Your task to perform on an android device: toggle translation in the chrome app Image 0: 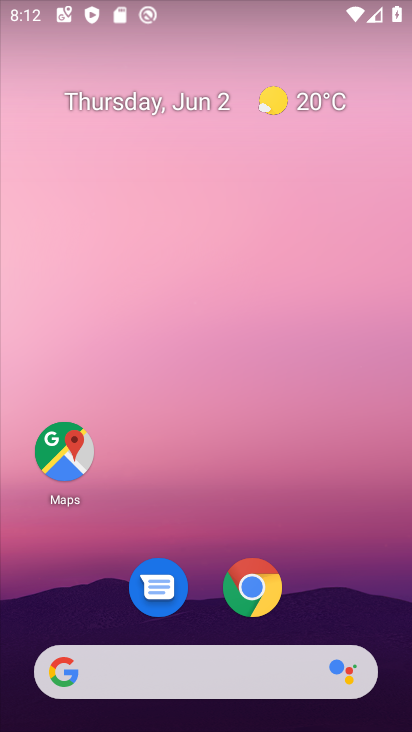
Step 0: click (257, 591)
Your task to perform on an android device: toggle translation in the chrome app Image 1: 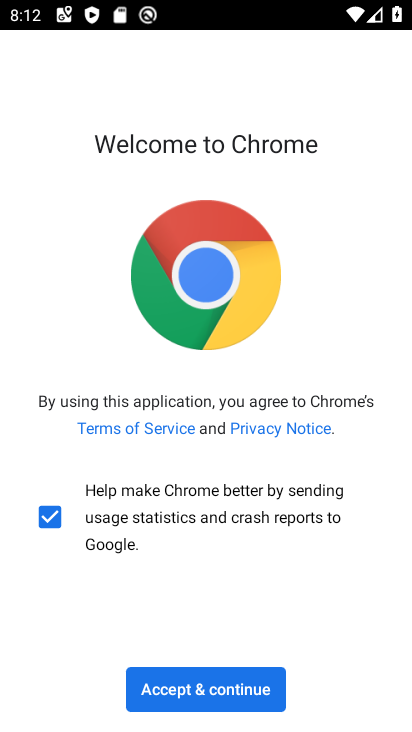
Step 1: click (224, 692)
Your task to perform on an android device: toggle translation in the chrome app Image 2: 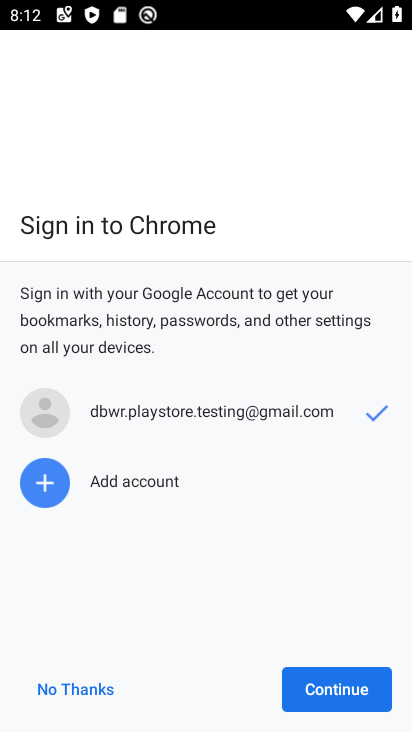
Step 2: click (327, 685)
Your task to perform on an android device: toggle translation in the chrome app Image 3: 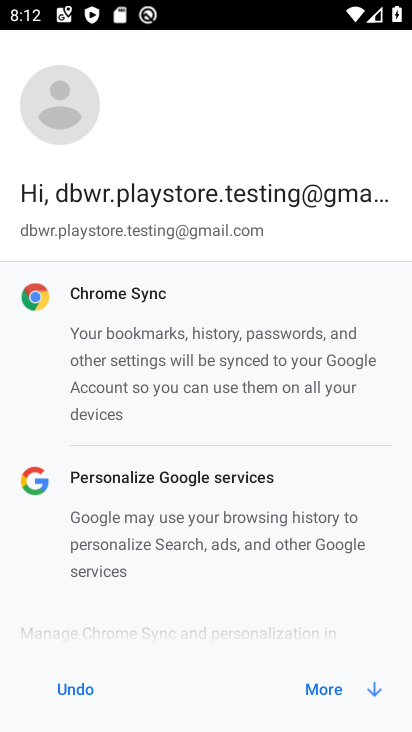
Step 3: click (337, 696)
Your task to perform on an android device: toggle translation in the chrome app Image 4: 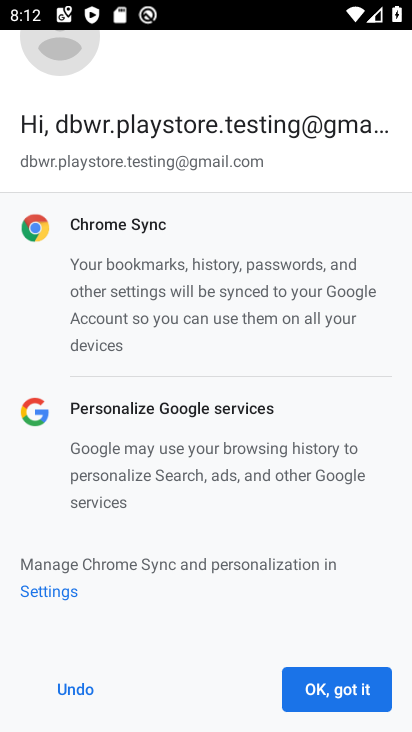
Step 4: click (337, 696)
Your task to perform on an android device: toggle translation in the chrome app Image 5: 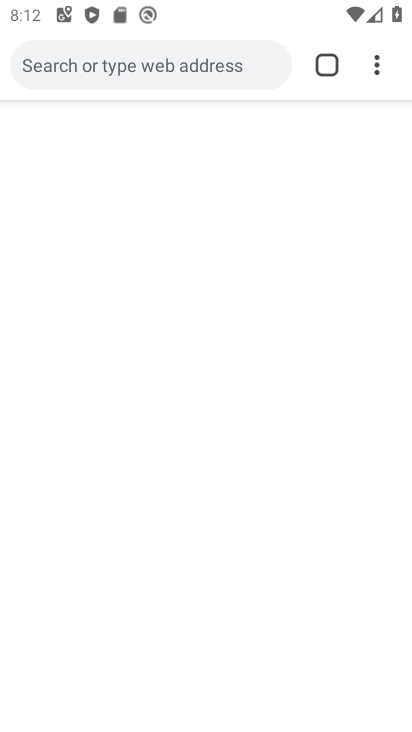
Step 5: click (386, 59)
Your task to perform on an android device: toggle translation in the chrome app Image 6: 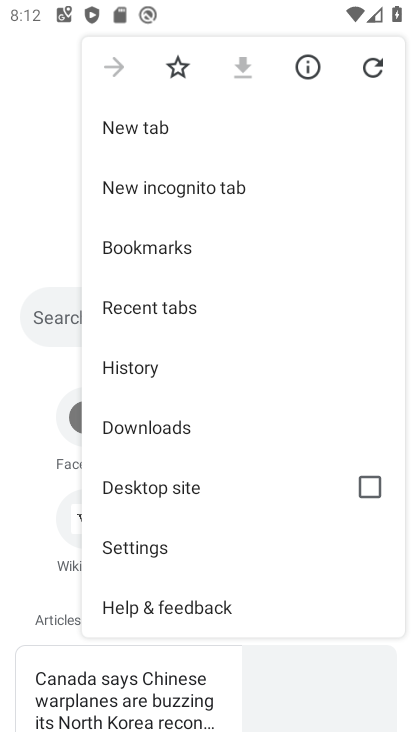
Step 6: click (181, 548)
Your task to perform on an android device: toggle translation in the chrome app Image 7: 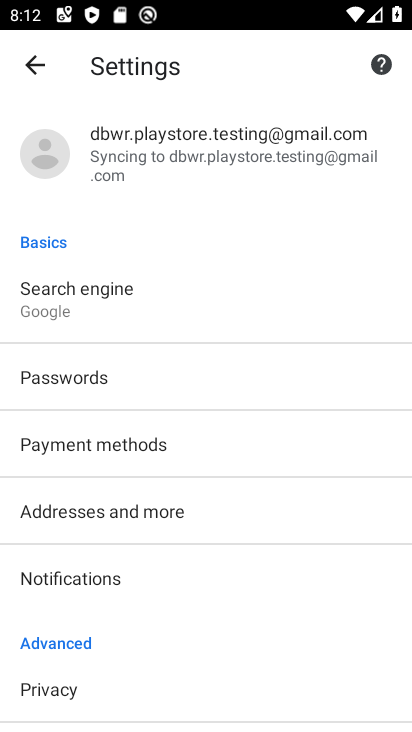
Step 7: drag from (181, 548) to (229, 224)
Your task to perform on an android device: toggle translation in the chrome app Image 8: 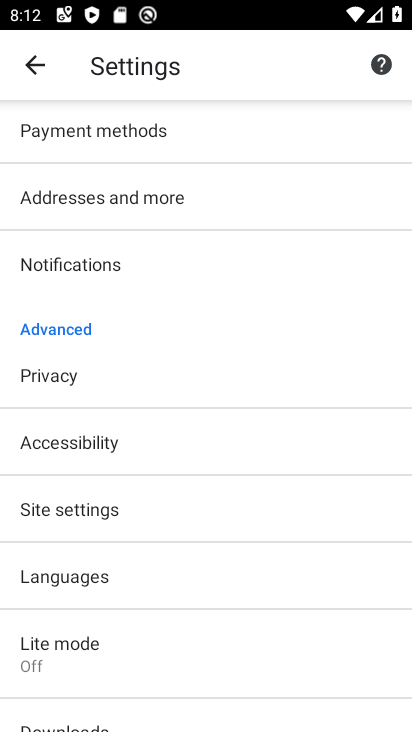
Step 8: click (78, 574)
Your task to perform on an android device: toggle translation in the chrome app Image 9: 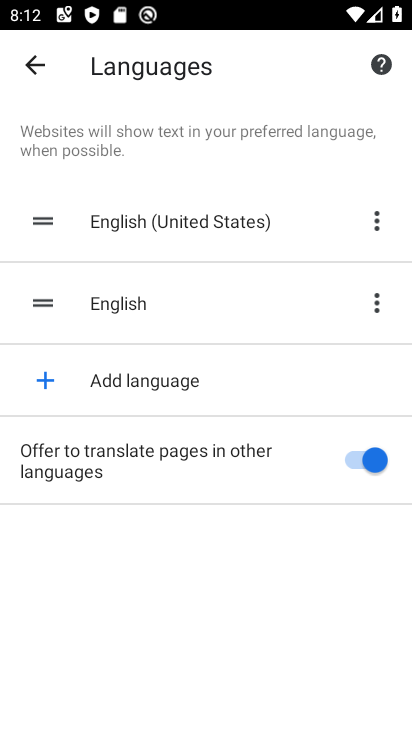
Step 9: click (384, 452)
Your task to perform on an android device: toggle translation in the chrome app Image 10: 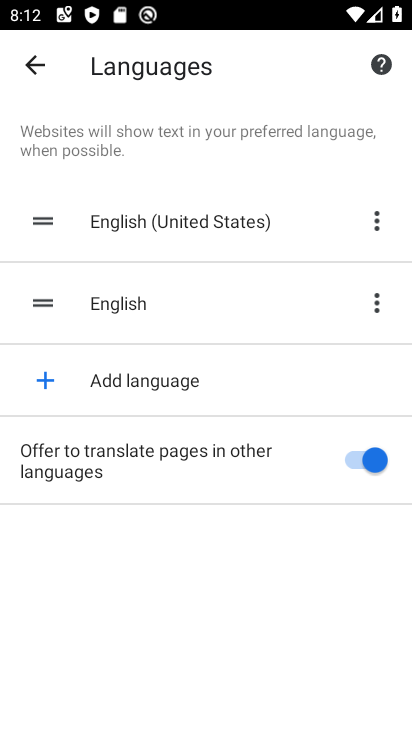
Step 10: click (384, 452)
Your task to perform on an android device: toggle translation in the chrome app Image 11: 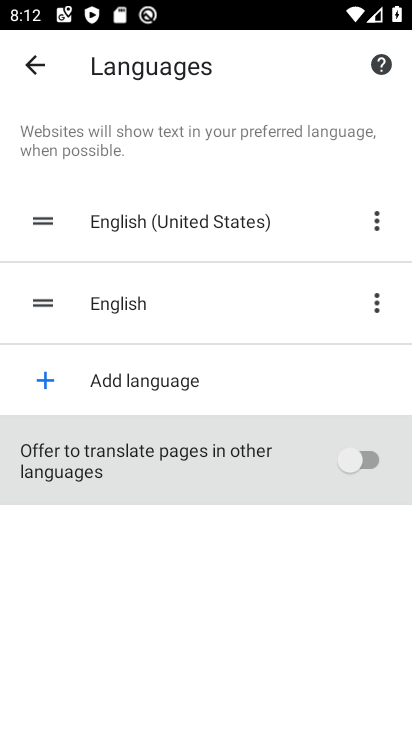
Step 11: click (384, 452)
Your task to perform on an android device: toggle translation in the chrome app Image 12: 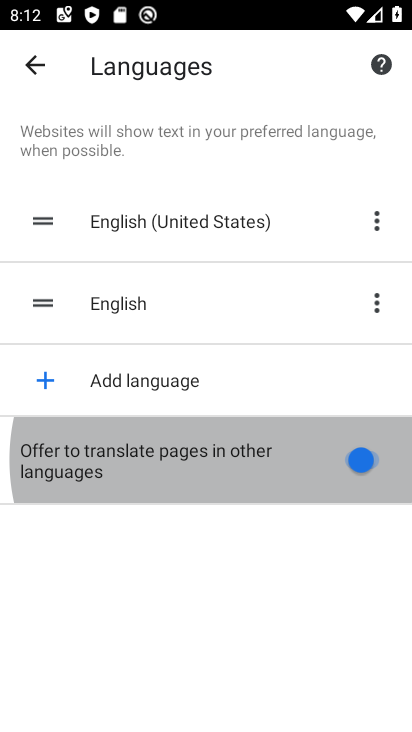
Step 12: click (384, 452)
Your task to perform on an android device: toggle translation in the chrome app Image 13: 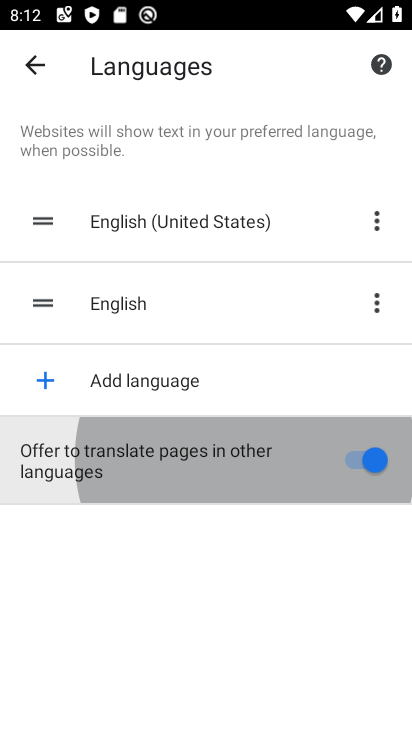
Step 13: click (384, 452)
Your task to perform on an android device: toggle translation in the chrome app Image 14: 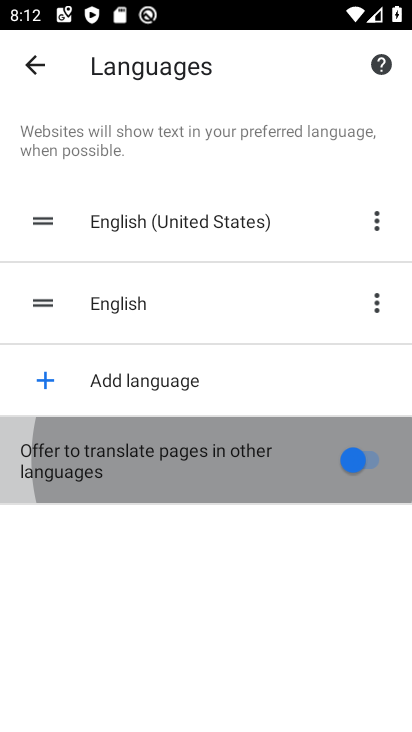
Step 14: click (384, 452)
Your task to perform on an android device: toggle translation in the chrome app Image 15: 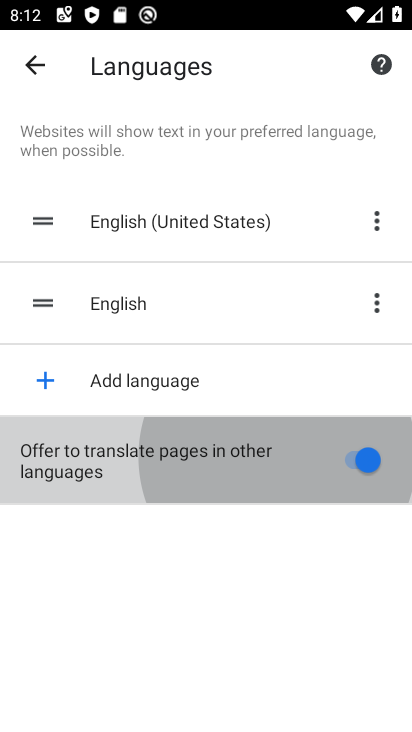
Step 15: click (384, 452)
Your task to perform on an android device: toggle translation in the chrome app Image 16: 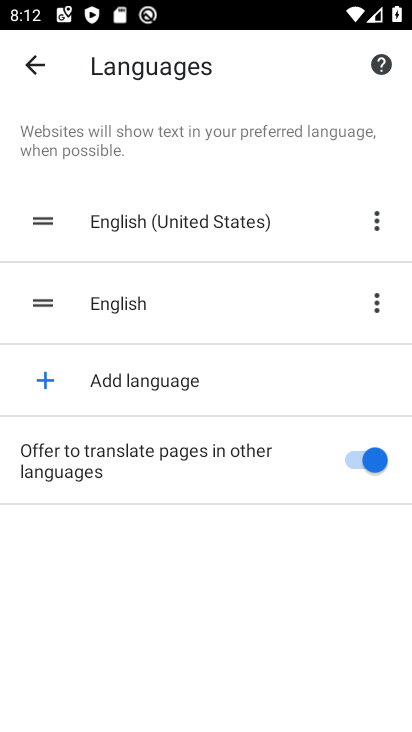
Step 16: task complete